Your task to perform on an android device: Go to CNN.com Image 0: 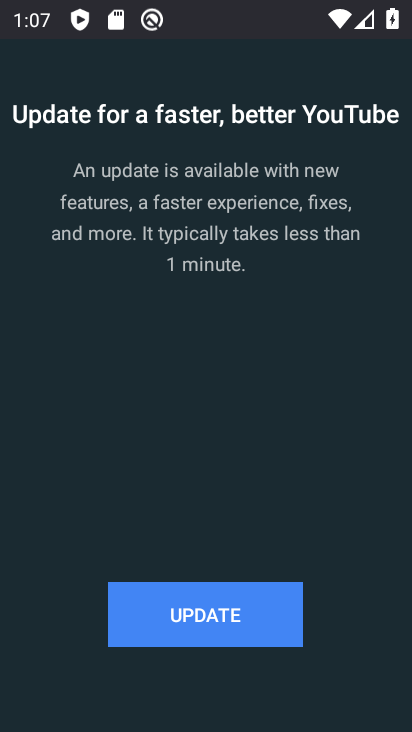
Step 0: press home button
Your task to perform on an android device: Go to CNN.com Image 1: 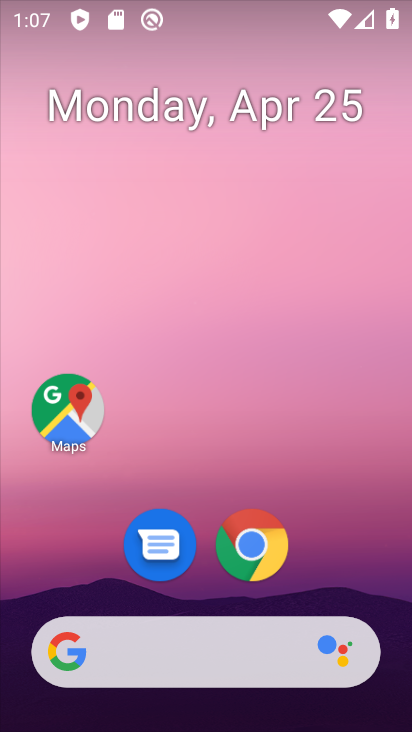
Step 1: click (254, 541)
Your task to perform on an android device: Go to CNN.com Image 2: 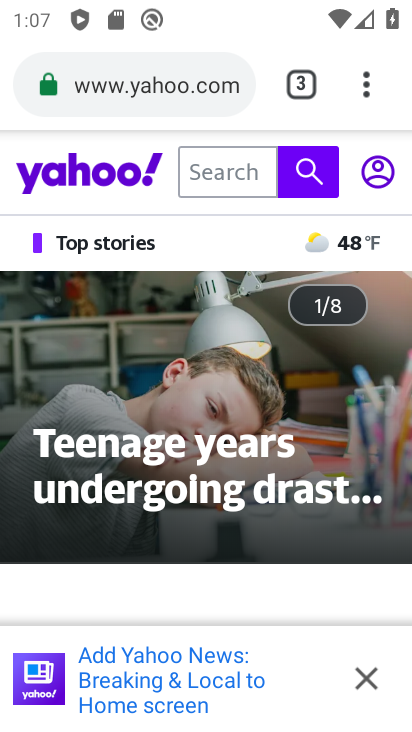
Step 2: click (301, 90)
Your task to perform on an android device: Go to CNN.com Image 3: 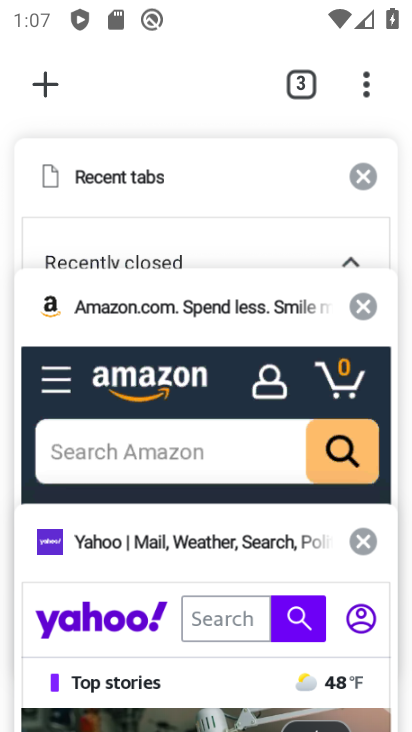
Step 3: click (50, 76)
Your task to perform on an android device: Go to CNN.com Image 4: 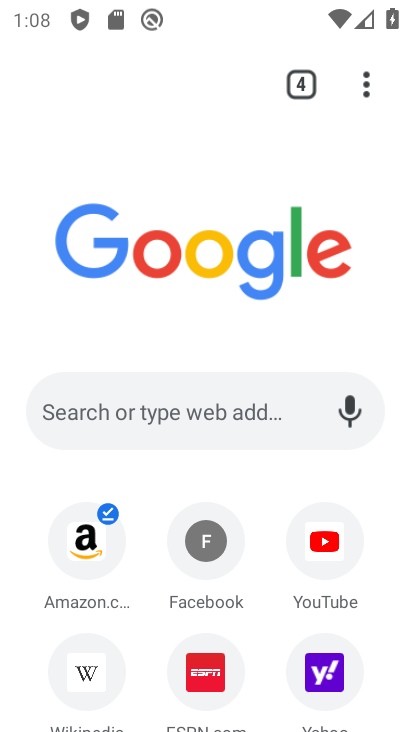
Step 4: drag from (277, 643) to (257, 519)
Your task to perform on an android device: Go to CNN.com Image 5: 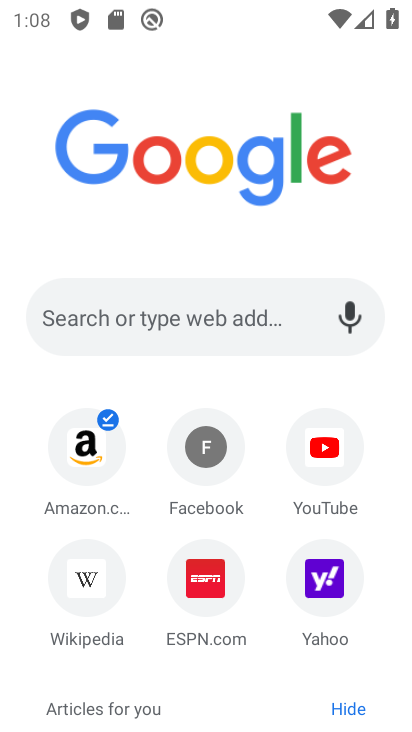
Step 5: click (194, 329)
Your task to perform on an android device: Go to CNN.com Image 6: 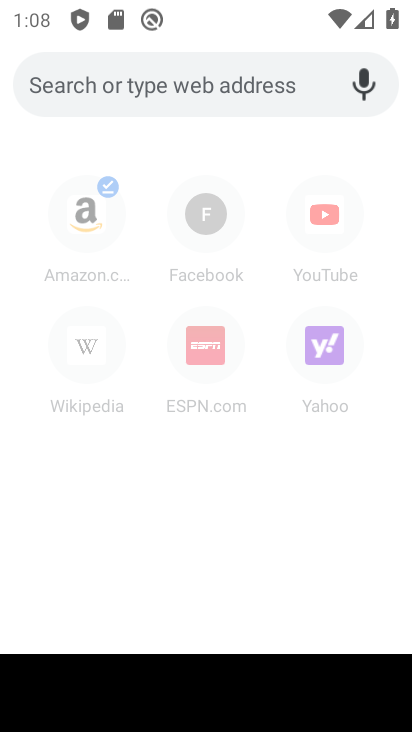
Step 6: type "CNN.com"
Your task to perform on an android device: Go to CNN.com Image 7: 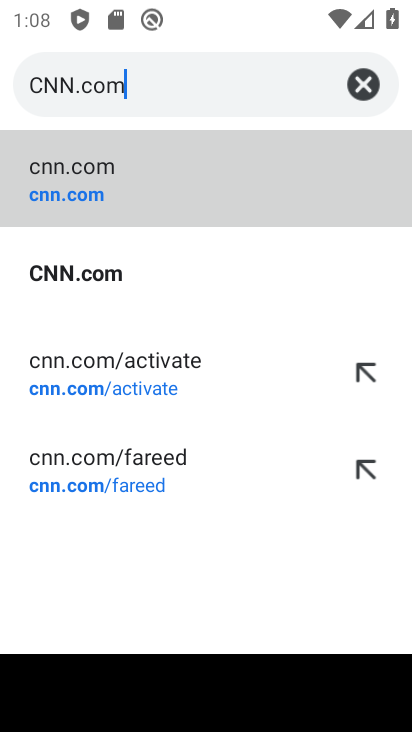
Step 7: click (106, 193)
Your task to perform on an android device: Go to CNN.com Image 8: 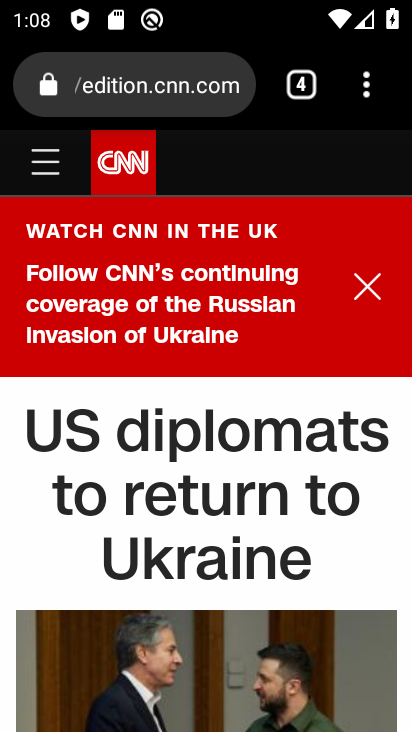
Step 8: task complete